Your task to perform on an android device: Do I have any events today? Image 0: 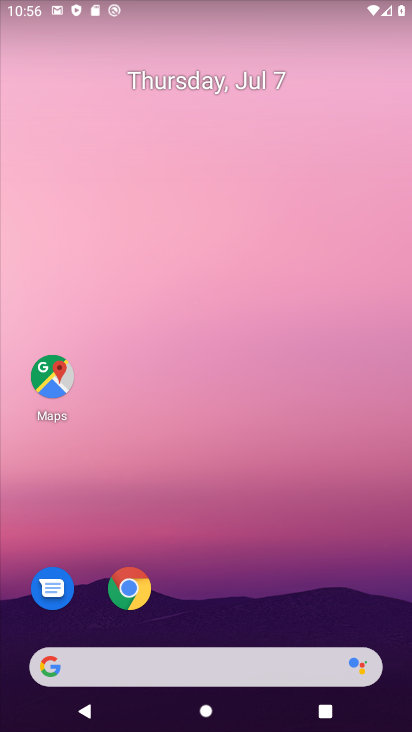
Step 0: drag from (201, 628) to (406, 151)
Your task to perform on an android device: Do I have any events today? Image 1: 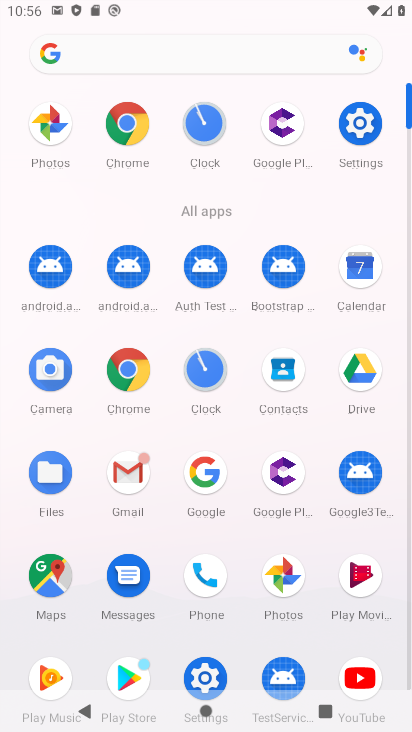
Step 1: click (378, 268)
Your task to perform on an android device: Do I have any events today? Image 2: 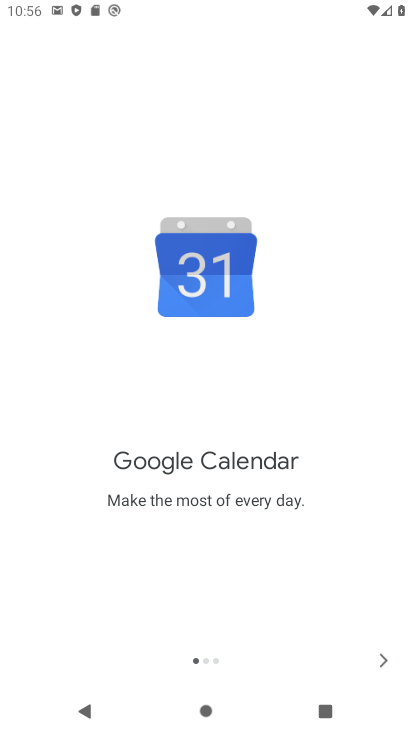
Step 2: click (389, 661)
Your task to perform on an android device: Do I have any events today? Image 3: 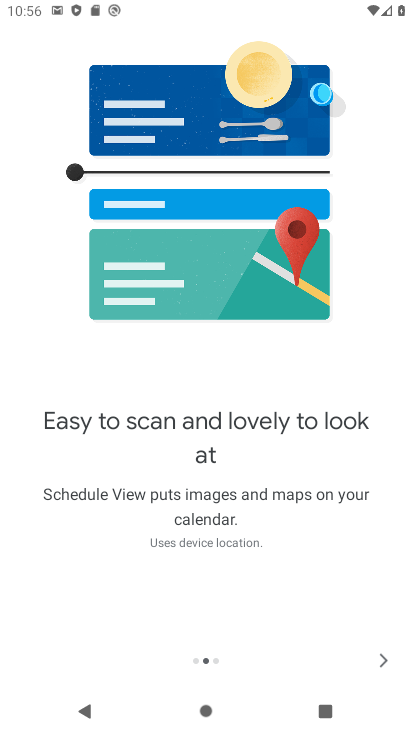
Step 3: click (382, 663)
Your task to perform on an android device: Do I have any events today? Image 4: 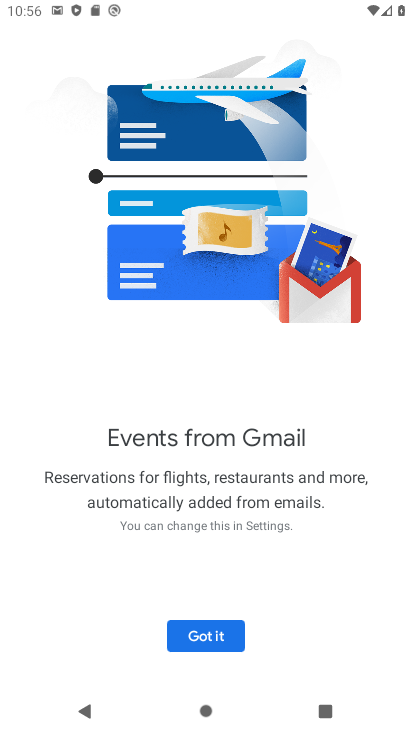
Step 4: click (192, 628)
Your task to perform on an android device: Do I have any events today? Image 5: 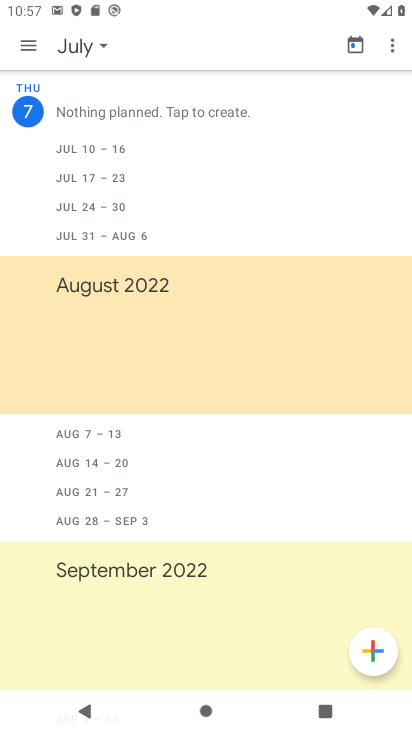
Step 5: click (34, 114)
Your task to perform on an android device: Do I have any events today? Image 6: 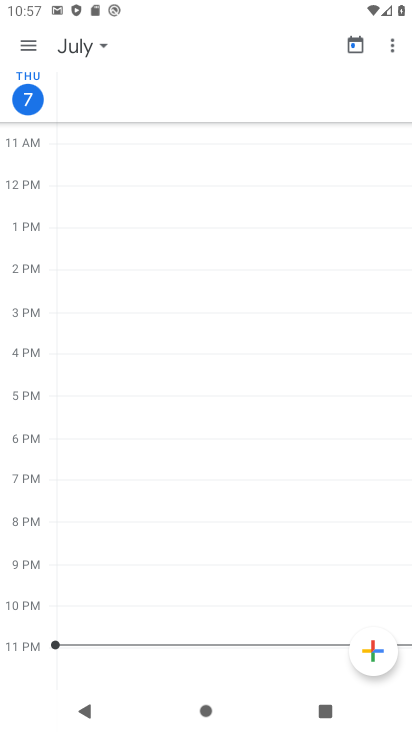
Step 6: task complete